Your task to perform on an android device: turn on priority inbox in the gmail app Image 0: 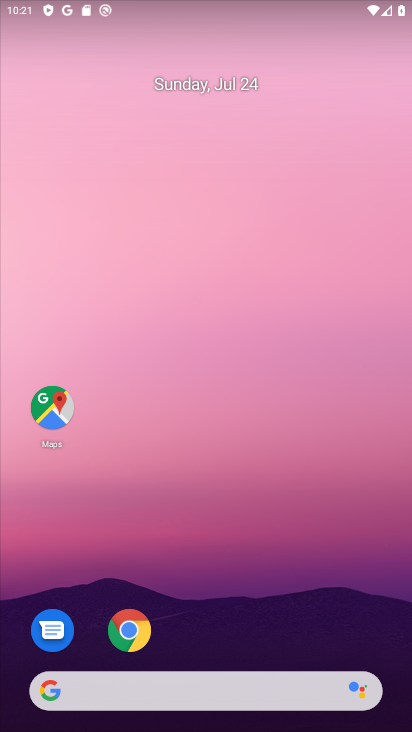
Step 0: press home button
Your task to perform on an android device: turn on priority inbox in the gmail app Image 1: 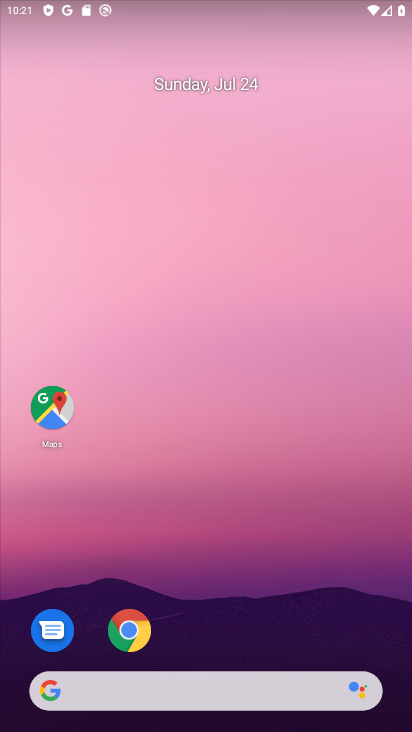
Step 1: drag from (250, 550) to (189, 88)
Your task to perform on an android device: turn on priority inbox in the gmail app Image 2: 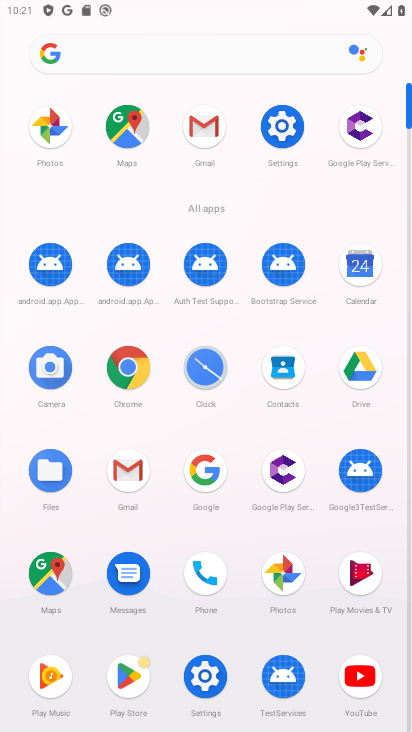
Step 2: drag from (254, 622) to (165, 47)
Your task to perform on an android device: turn on priority inbox in the gmail app Image 3: 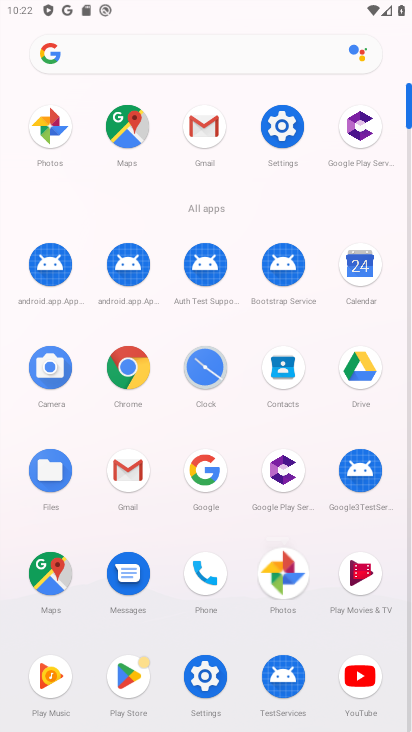
Step 3: click (281, 127)
Your task to perform on an android device: turn on priority inbox in the gmail app Image 4: 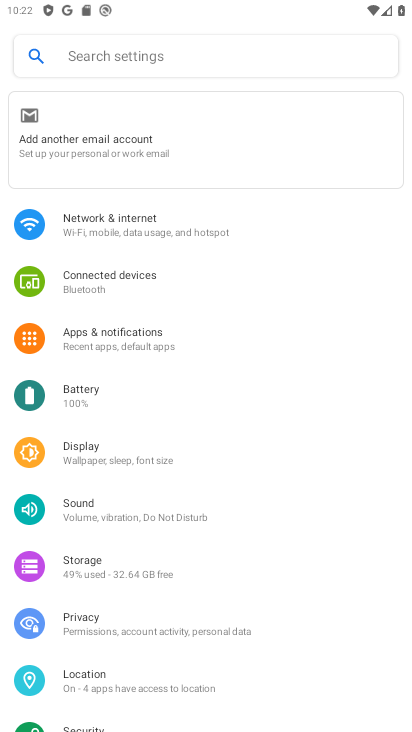
Step 4: press home button
Your task to perform on an android device: turn on priority inbox in the gmail app Image 5: 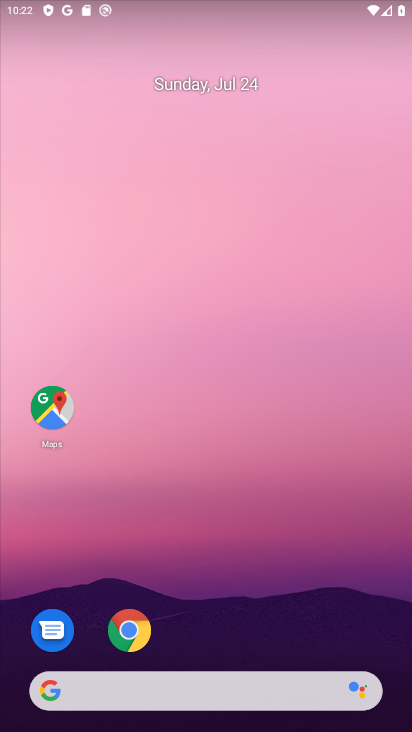
Step 5: drag from (258, 589) to (247, 12)
Your task to perform on an android device: turn on priority inbox in the gmail app Image 6: 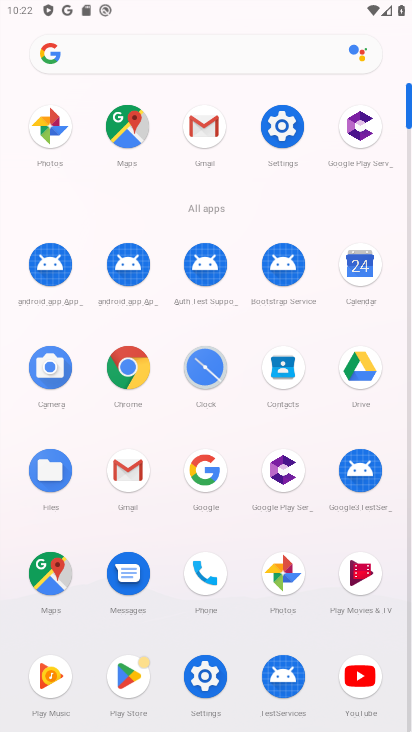
Step 6: click (200, 123)
Your task to perform on an android device: turn on priority inbox in the gmail app Image 7: 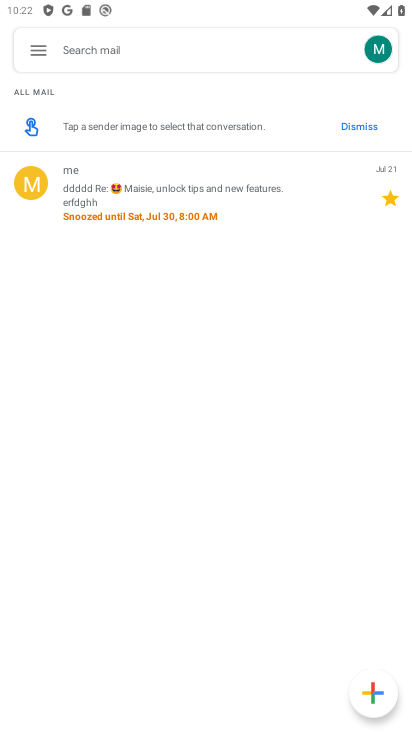
Step 7: click (31, 51)
Your task to perform on an android device: turn on priority inbox in the gmail app Image 8: 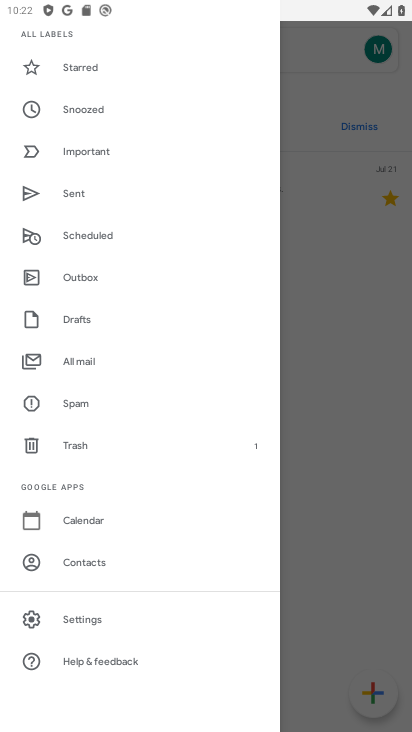
Step 8: click (107, 619)
Your task to perform on an android device: turn on priority inbox in the gmail app Image 9: 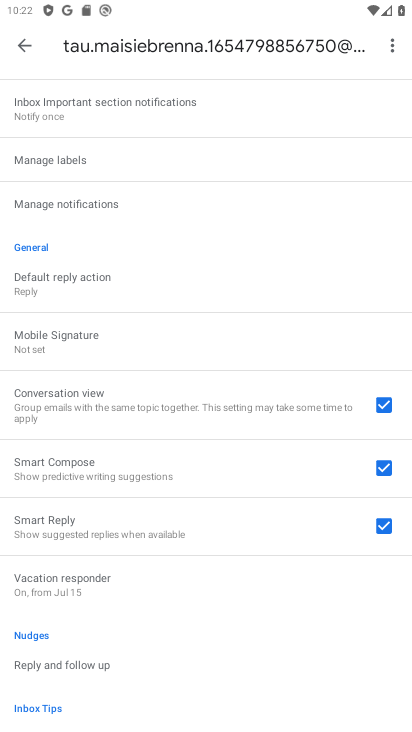
Step 9: task complete